Your task to perform on an android device: change the clock display to show seconds Image 0: 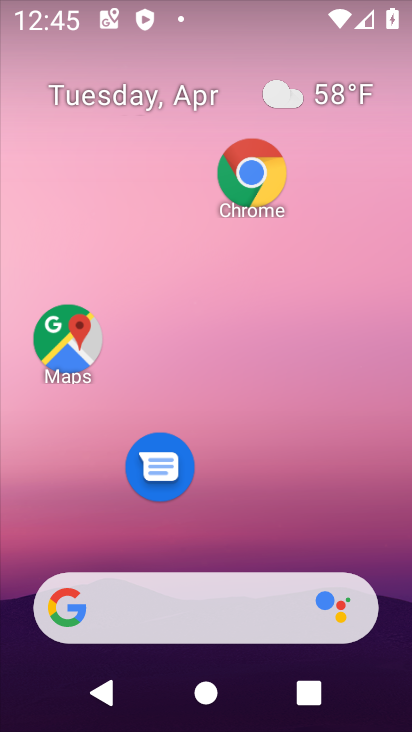
Step 0: click (307, 116)
Your task to perform on an android device: change the clock display to show seconds Image 1: 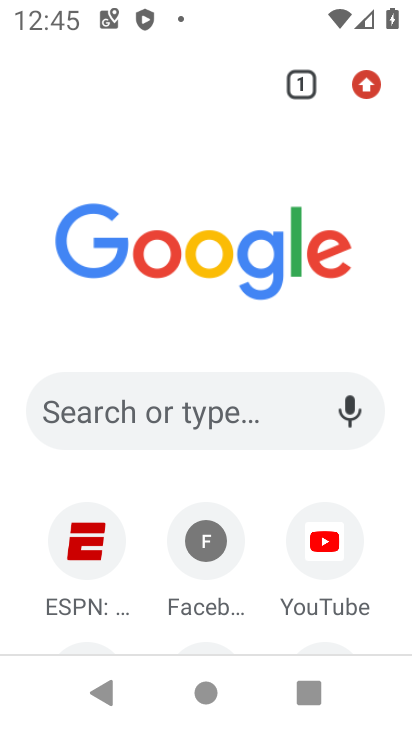
Step 1: press home button
Your task to perform on an android device: change the clock display to show seconds Image 2: 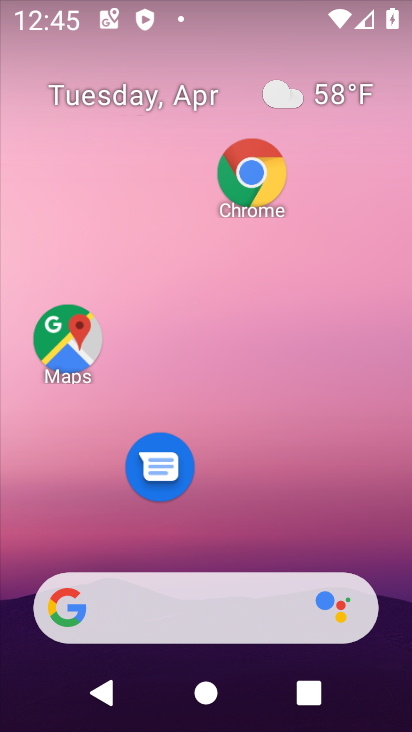
Step 2: drag from (290, 458) to (345, 11)
Your task to perform on an android device: change the clock display to show seconds Image 3: 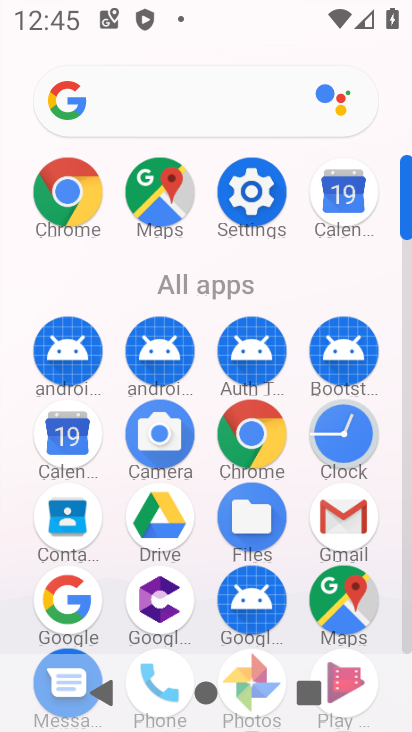
Step 3: click (334, 442)
Your task to perform on an android device: change the clock display to show seconds Image 4: 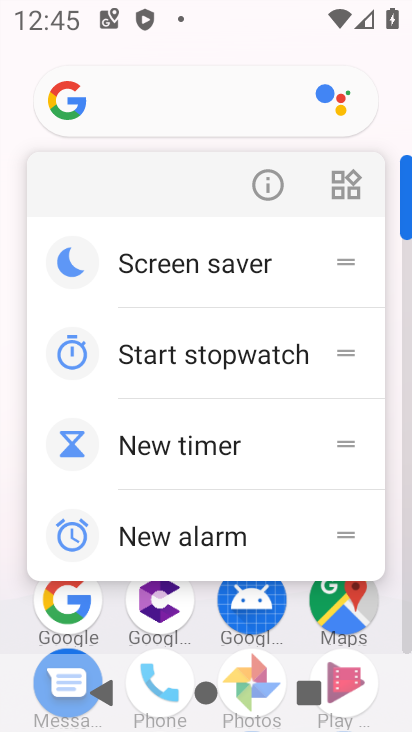
Step 4: click (389, 351)
Your task to perform on an android device: change the clock display to show seconds Image 5: 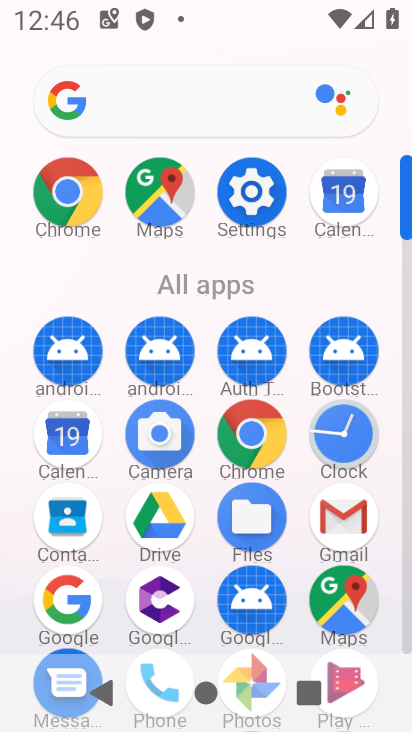
Step 5: click (343, 415)
Your task to perform on an android device: change the clock display to show seconds Image 6: 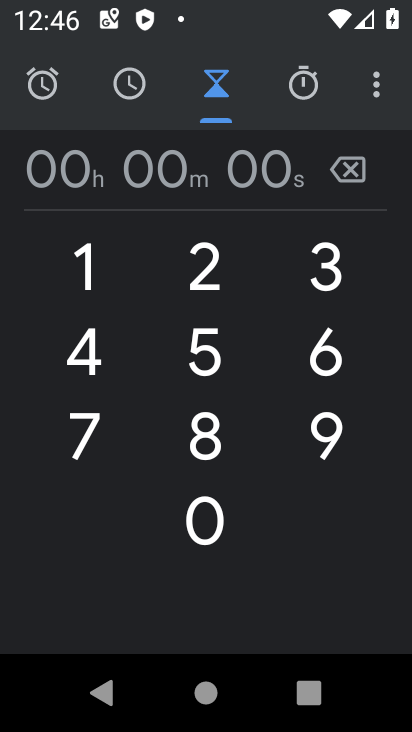
Step 6: click (371, 87)
Your task to perform on an android device: change the clock display to show seconds Image 7: 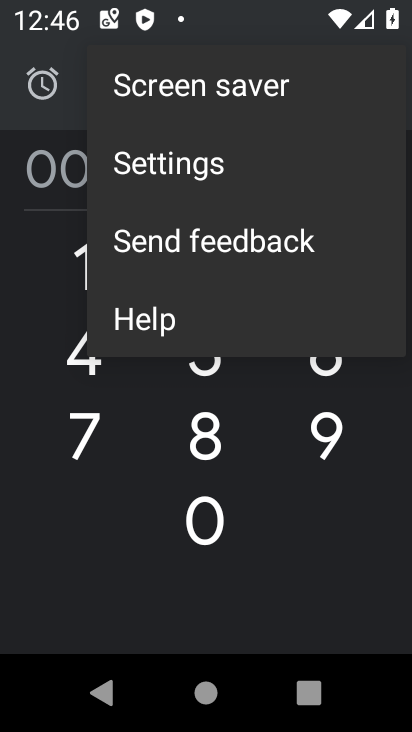
Step 7: click (253, 176)
Your task to perform on an android device: change the clock display to show seconds Image 8: 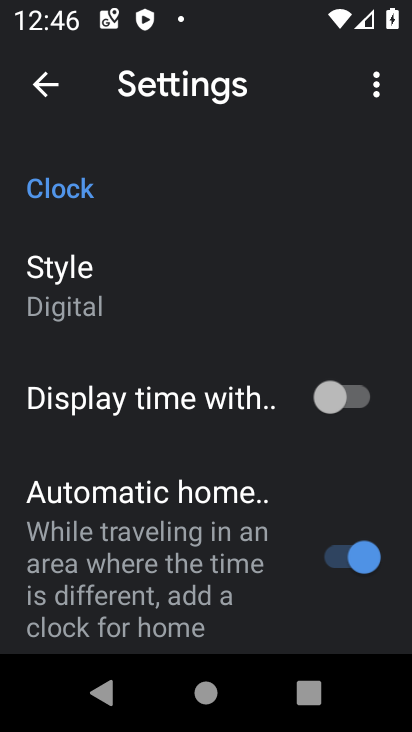
Step 8: click (357, 404)
Your task to perform on an android device: change the clock display to show seconds Image 9: 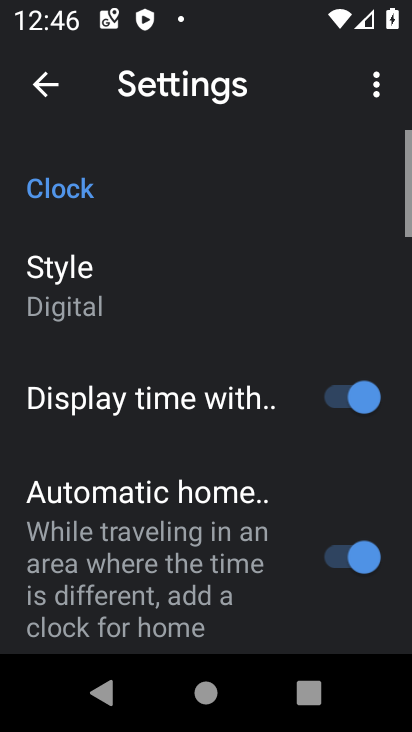
Step 9: task complete